Your task to perform on an android device: choose inbox layout in the gmail app Image 0: 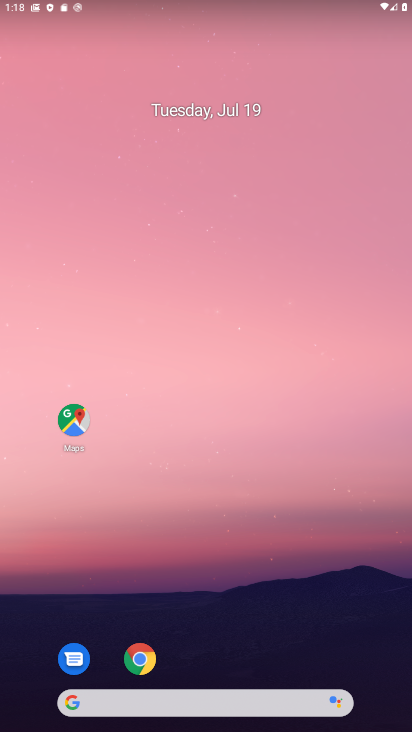
Step 0: drag from (285, 627) to (240, 6)
Your task to perform on an android device: choose inbox layout in the gmail app Image 1: 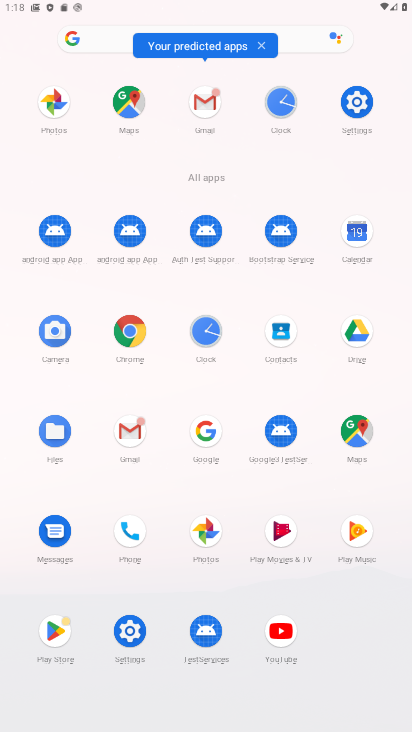
Step 1: click (133, 437)
Your task to perform on an android device: choose inbox layout in the gmail app Image 2: 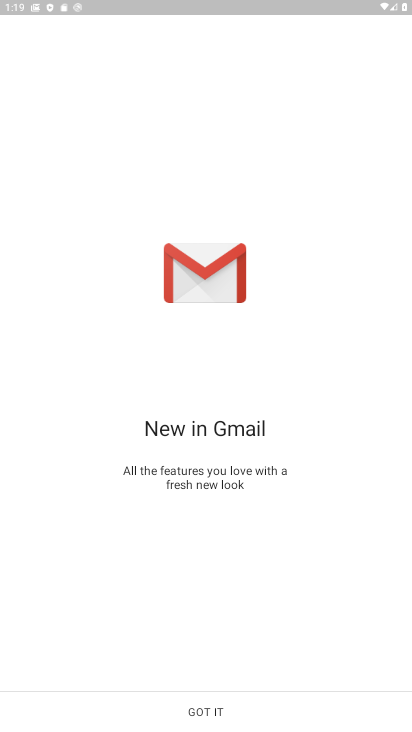
Step 2: click (209, 719)
Your task to perform on an android device: choose inbox layout in the gmail app Image 3: 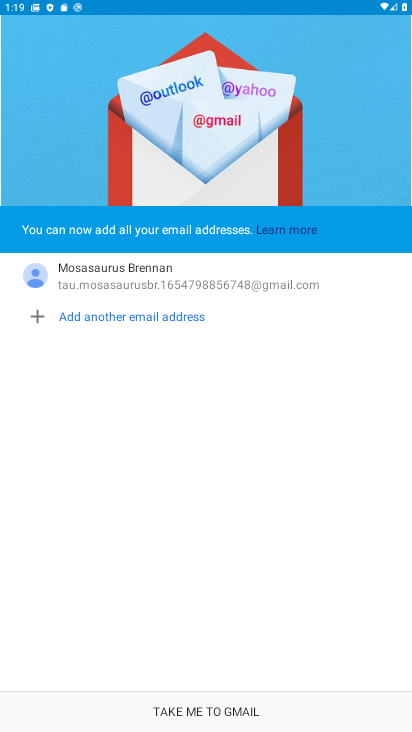
Step 3: click (209, 719)
Your task to perform on an android device: choose inbox layout in the gmail app Image 4: 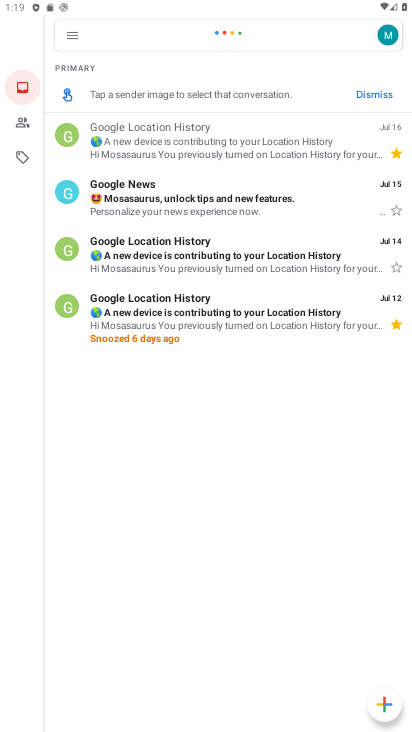
Step 4: click (69, 41)
Your task to perform on an android device: choose inbox layout in the gmail app Image 5: 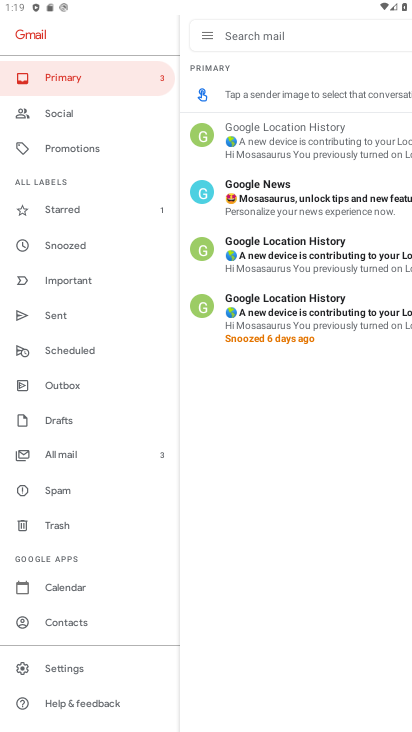
Step 5: click (50, 673)
Your task to perform on an android device: choose inbox layout in the gmail app Image 6: 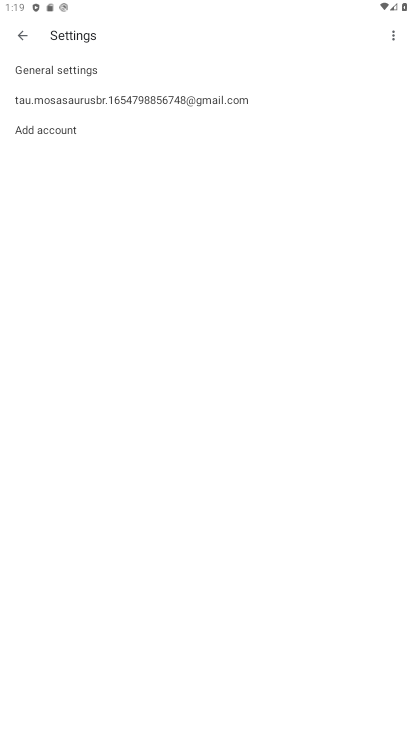
Step 6: click (190, 107)
Your task to perform on an android device: choose inbox layout in the gmail app Image 7: 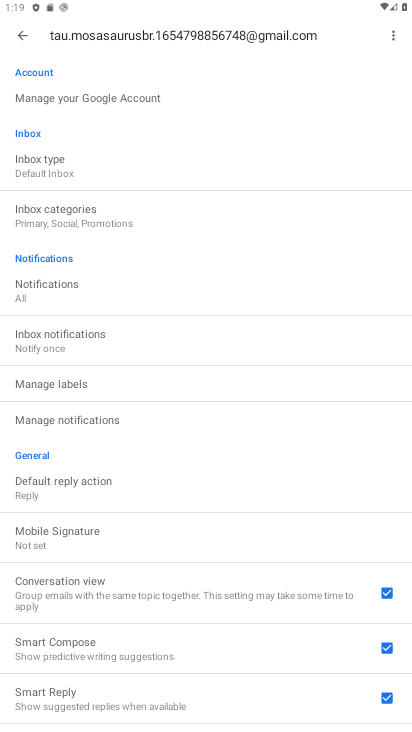
Step 7: click (182, 161)
Your task to perform on an android device: choose inbox layout in the gmail app Image 8: 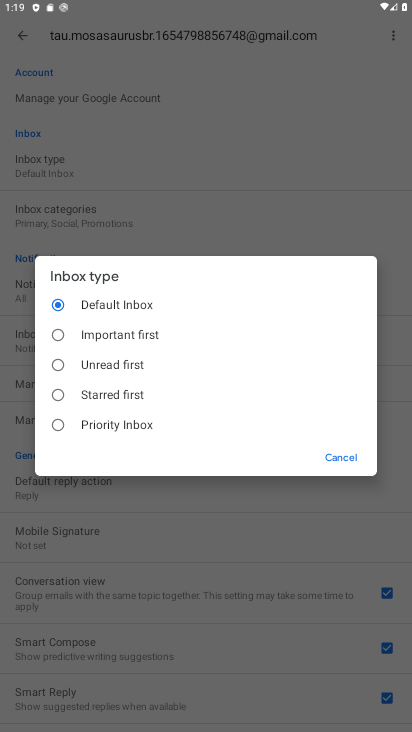
Step 8: click (150, 335)
Your task to perform on an android device: choose inbox layout in the gmail app Image 9: 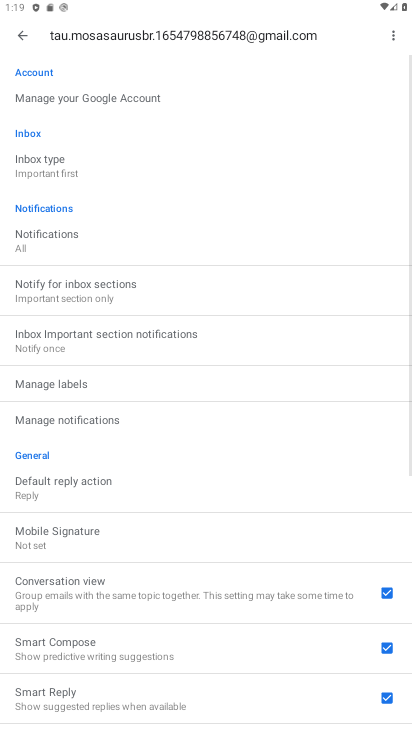
Step 9: task complete